Your task to perform on an android device: Go to settings Image 0: 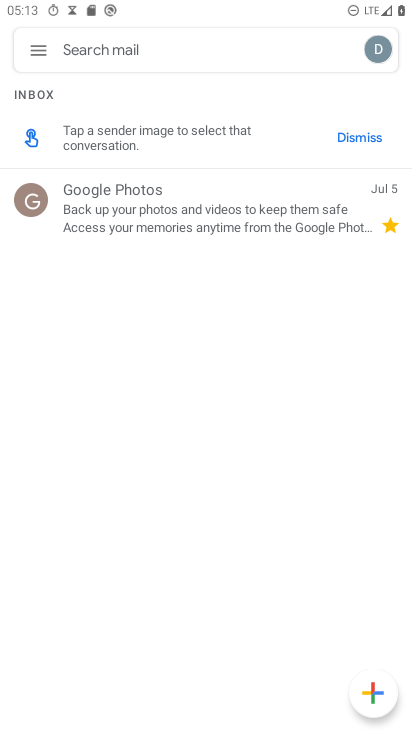
Step 0: press home button
Your task to perform on an android device: Go to settings Image 1: 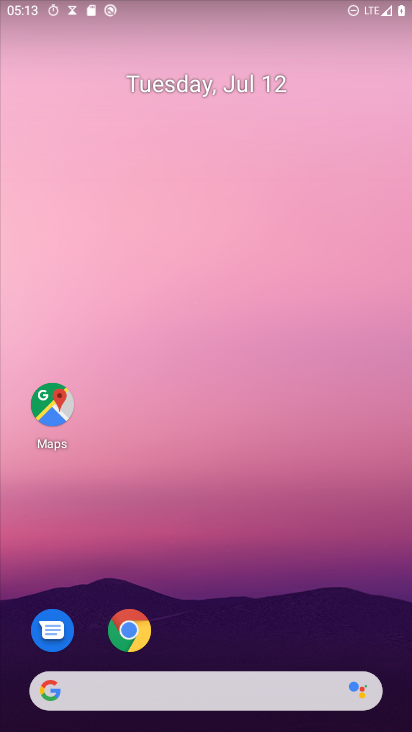
Step 1: drag from (191, 677) to (216, 187)
Your task to perform on an android device: Go to settings Image 2: 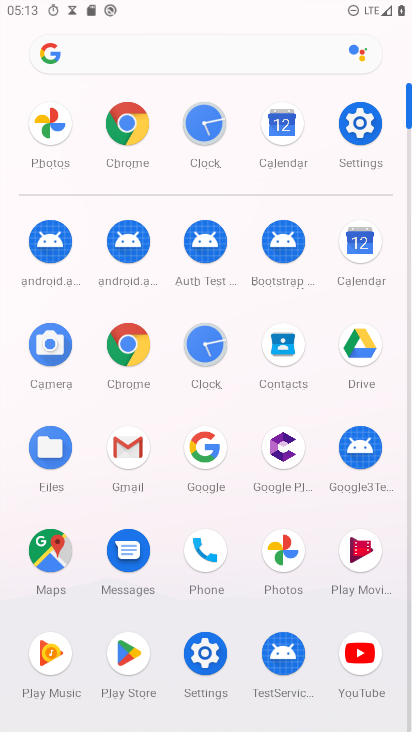
Step 2: click (359, 126)
Your task to perform on an android device: Go to settings Image 3: 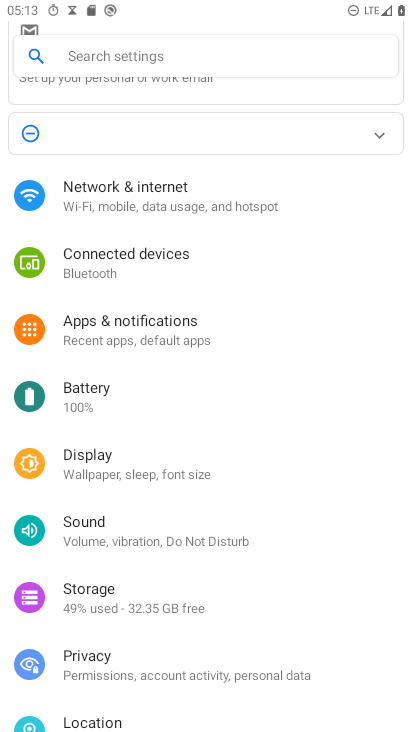
Step 3: task complete